Your task to perform on an android device: change text size in settings app Image 0: 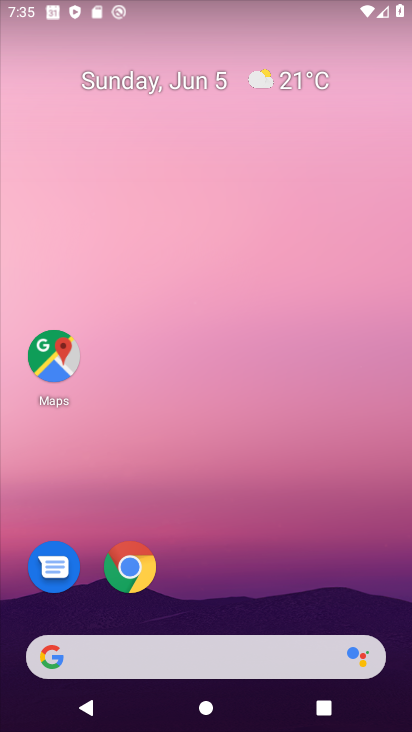
Step 0: drag from (222, 601) to (221, 279)
Your task to perform on an android device: change text size in settings app Image 1: 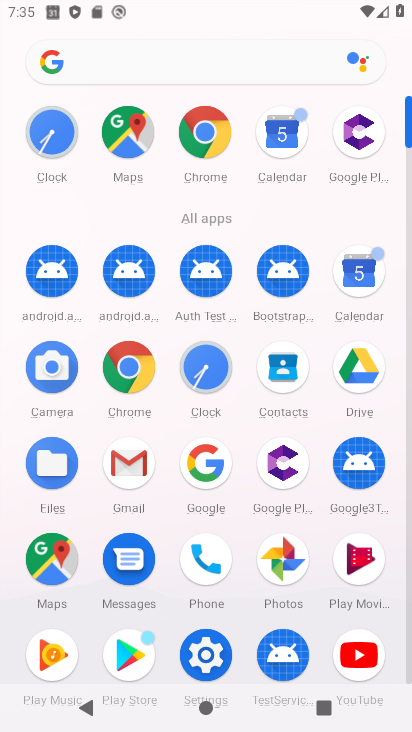
Step 1: click (213, 659)
Your task to perform on an android device: change text size in settings app Image 2: 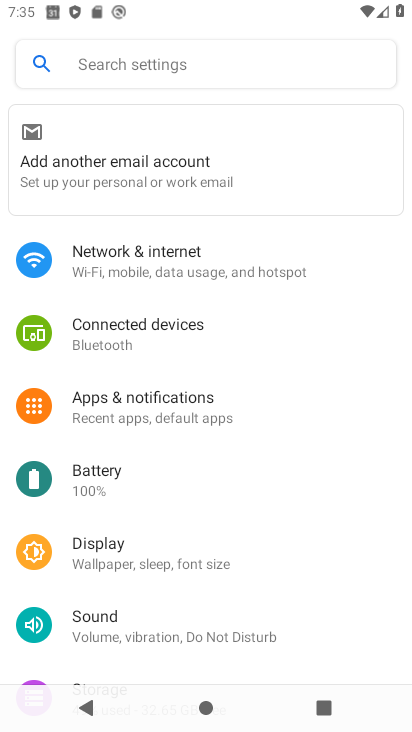
Step 2: drag from (215, 652) to (238, 193)
Your task to perform on an android device: change text size in settings app Image 3: 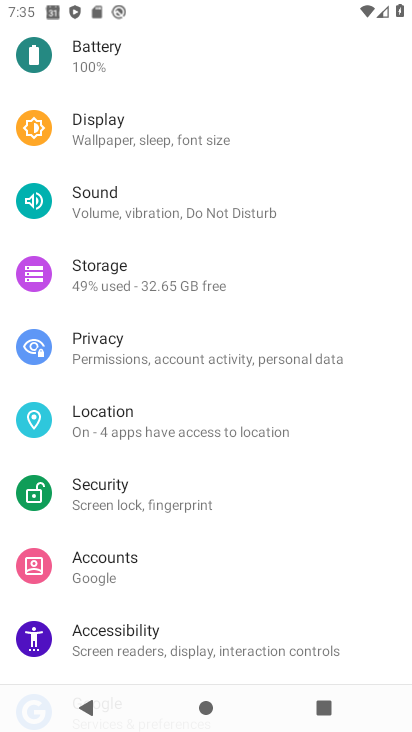
Step 3: click (149, 651)
Your task to perform on an android device: change text size in settings app Image 4: 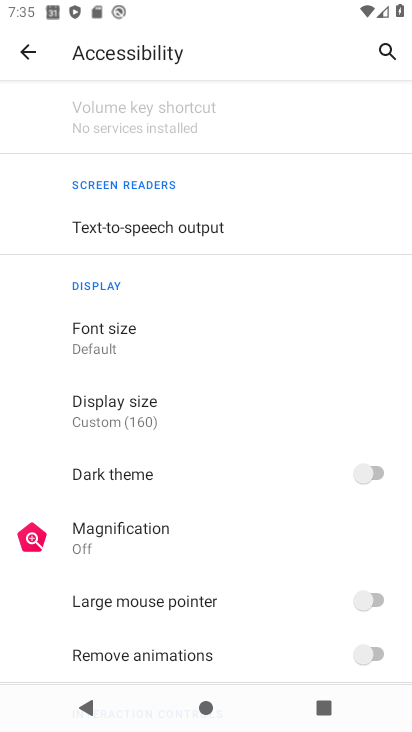
Step 4: click (106, 334)
Your task to perform on an android device: change text size in settings app Image 5: 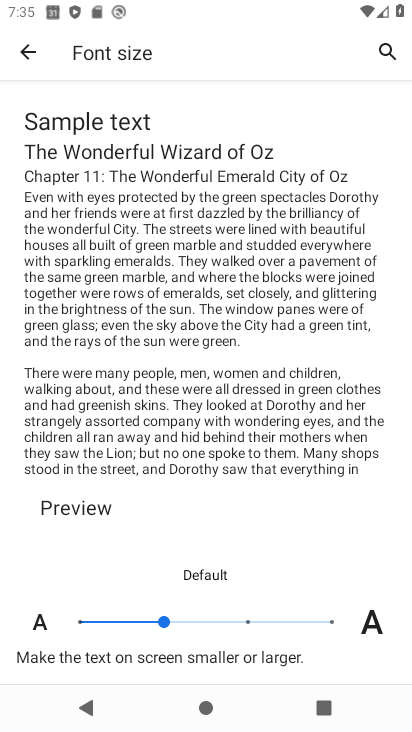
Step 5: click (247, 625)
Your task to perform on an android device: change text size in settings app Image 6: 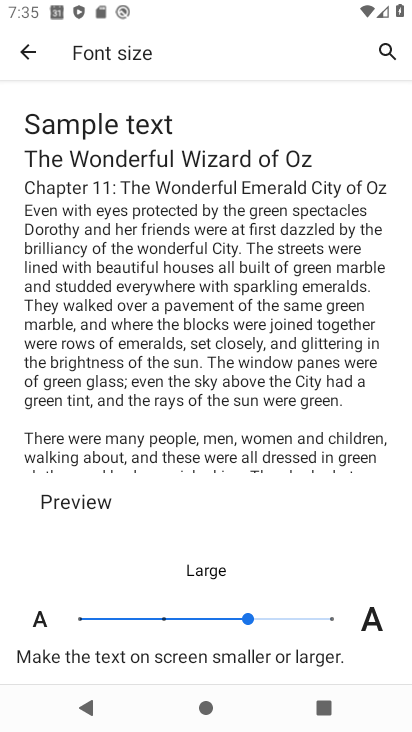
Step 6: task complete